Your task to perform on an android device: choose inbox layout in the gmail app Image 0: 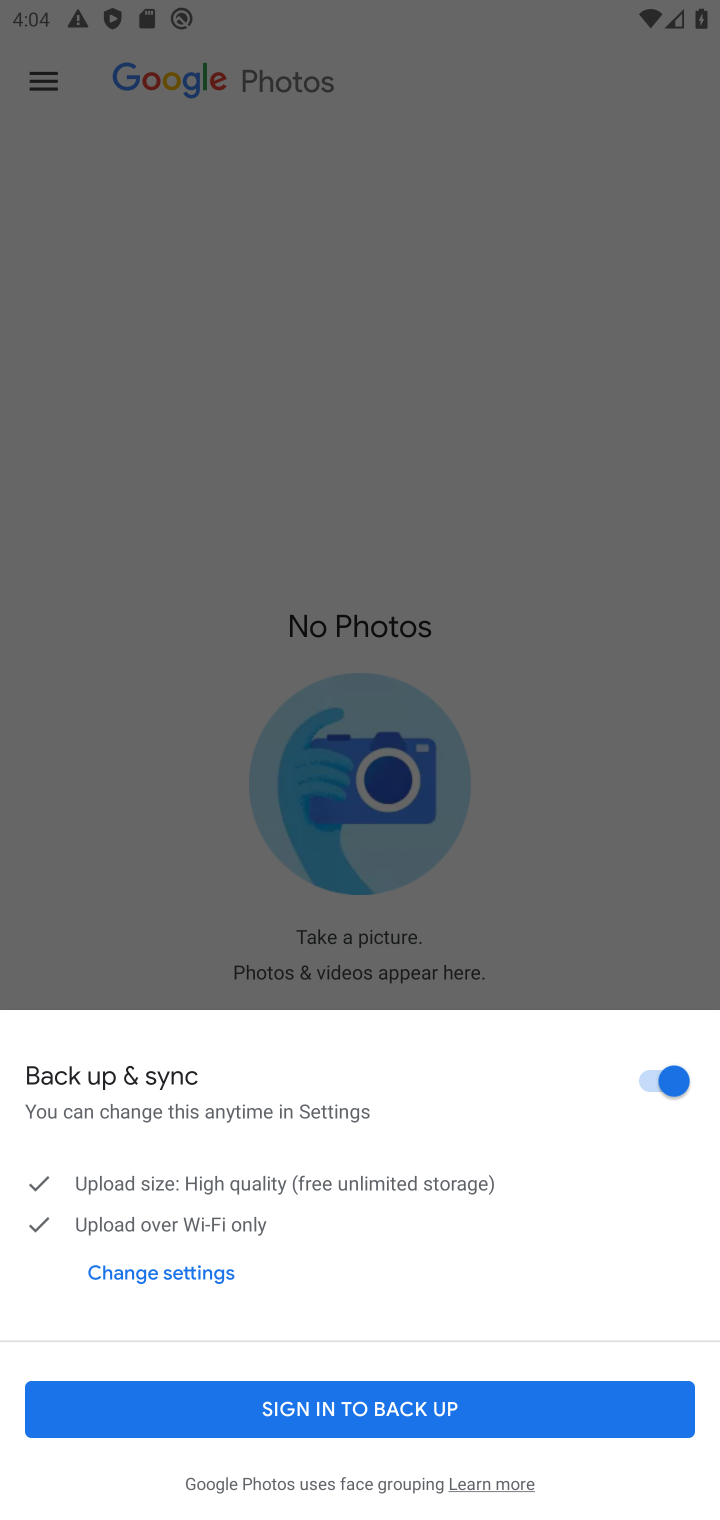
Step 0: press home button
Your task to perform on an android device: choose inbox layout in the gmail app Image 1: 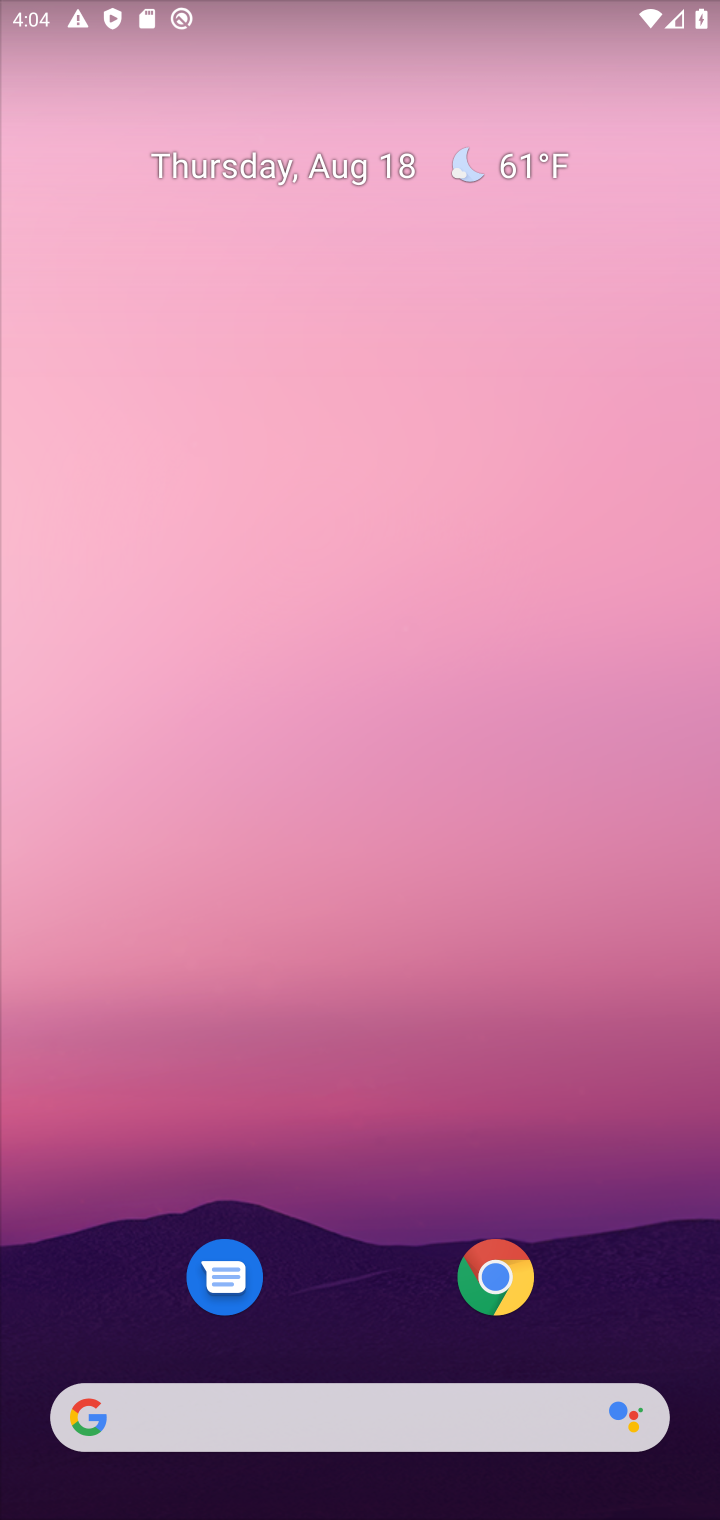
Step 1: drag from (352, 1203) to (525, 236)
Your task to perform on an android device: choose inbox layout in the gmail app Image 2: 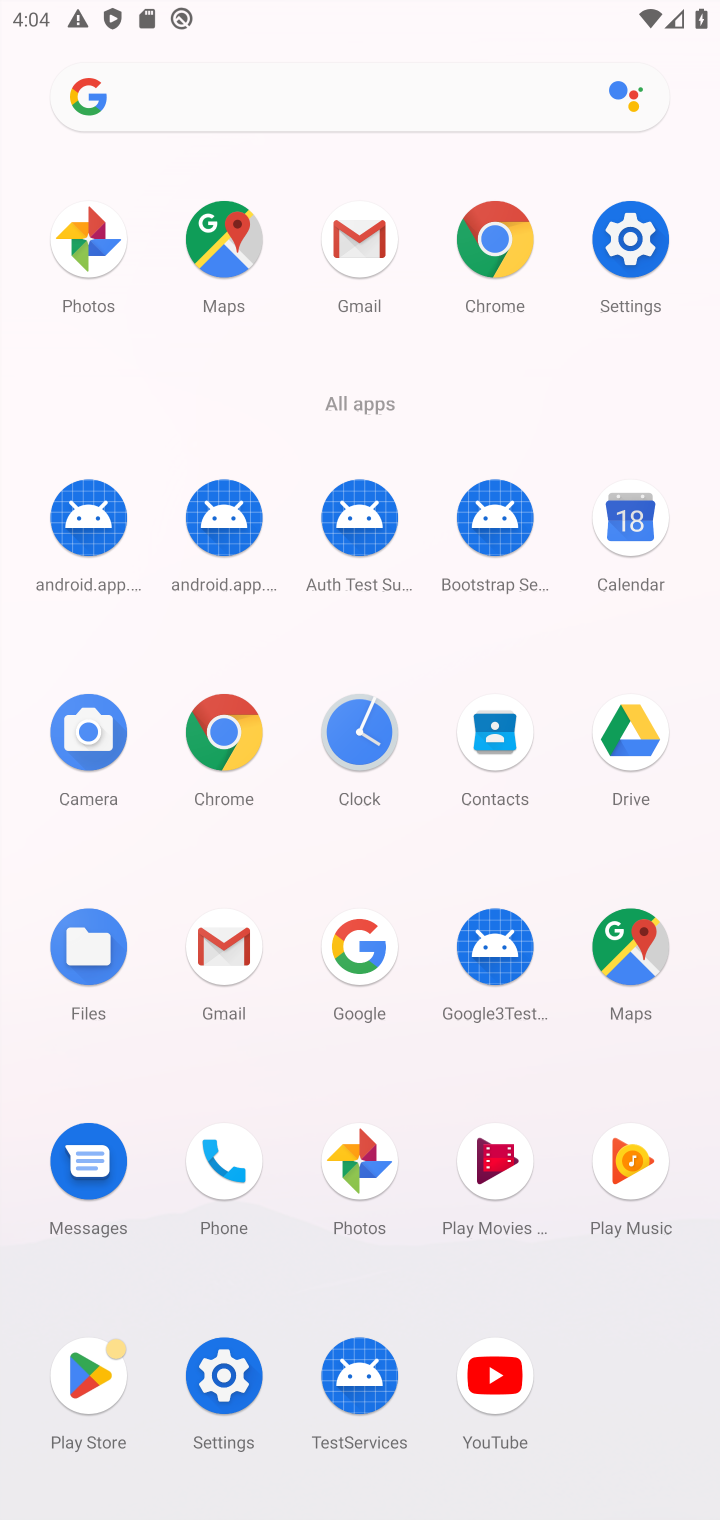
Step 2: click (622, 236)
Your task to perform on an android device: choose inbox layout in the gmail app Image 3: 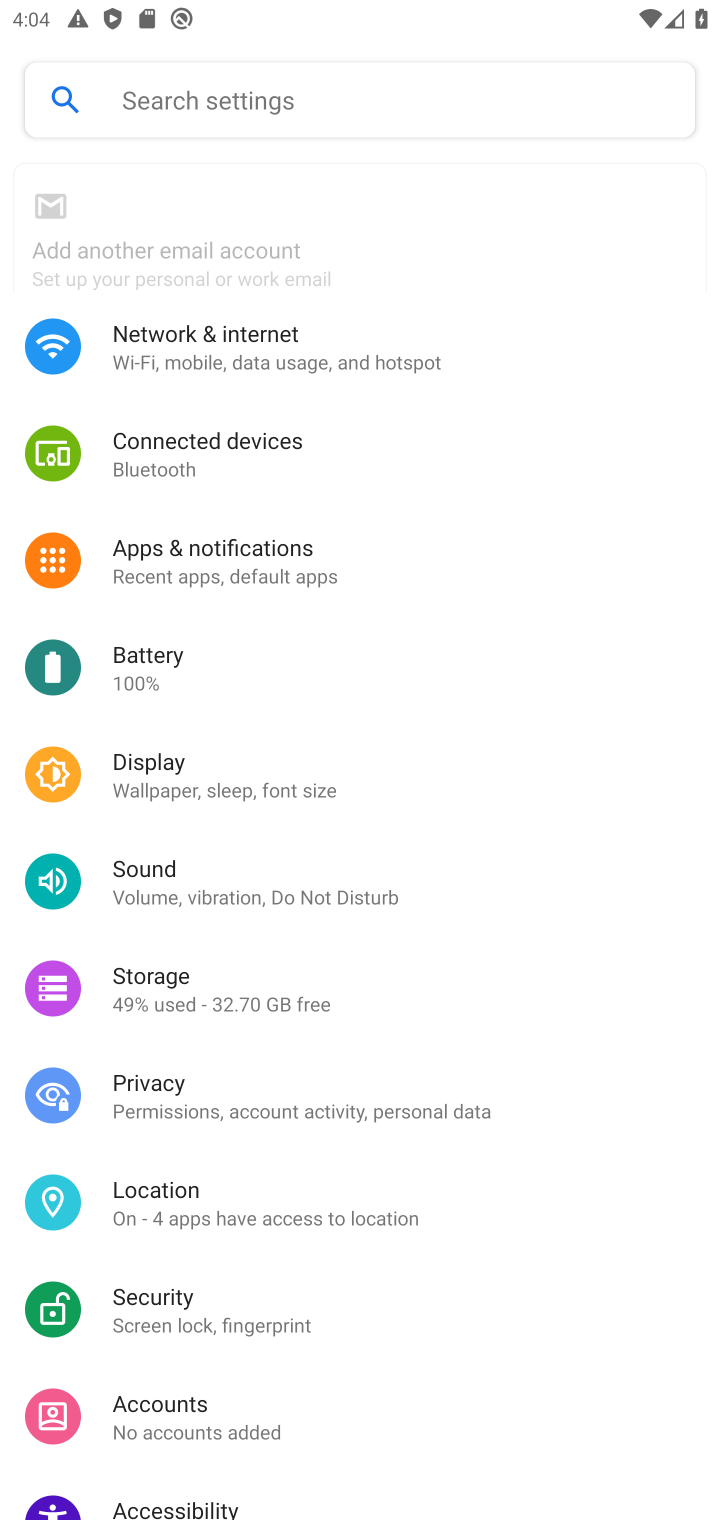
Step 3: task complete